Your task to perform on an android device: toggle location history Image 0: 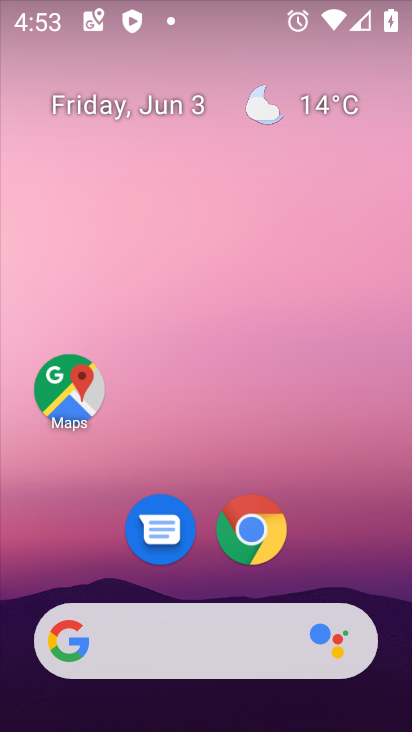
Step 0: press home button
Your task to perform on an android device: toggle location history Image 1: 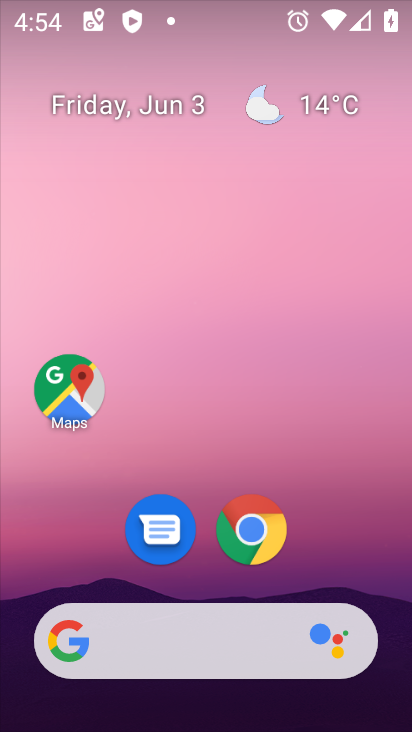
Step 1: drag from (207, 248) to (228, 101)
Your task to perform on an android device: toggle location history Image 2: 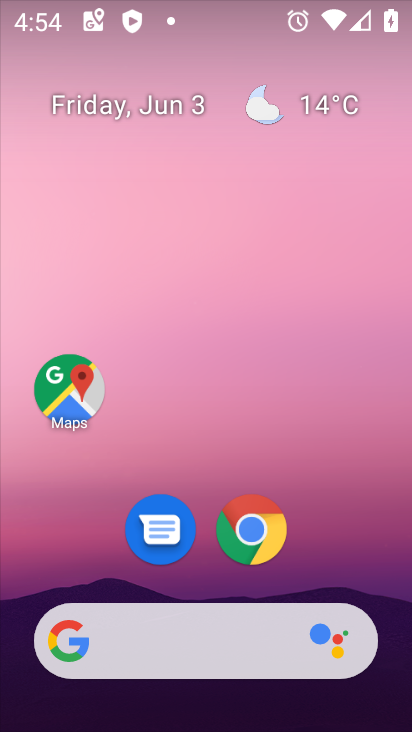
Step 2: drag from (211, 576) to (216, 208)
Your task to perform on an android device: toggle location history Image 3: 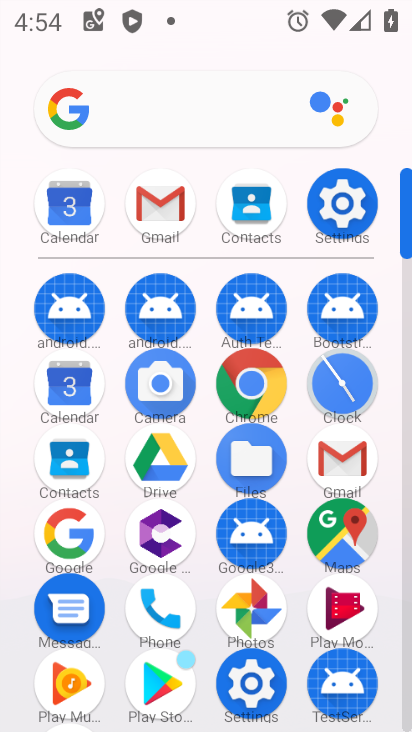
Step 3: click (339, 196)
Your task to perform on an android device: toggle location history Image 4: 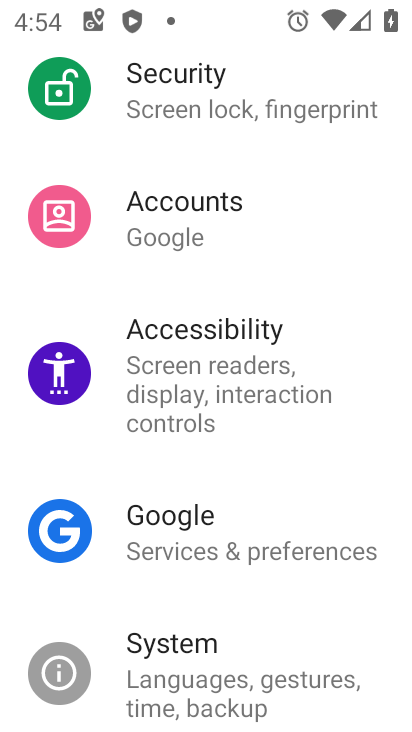
Step 4: drag from (203, 150) to (224, 662)
Your task to perform on an android device: toggle location history Image 5: 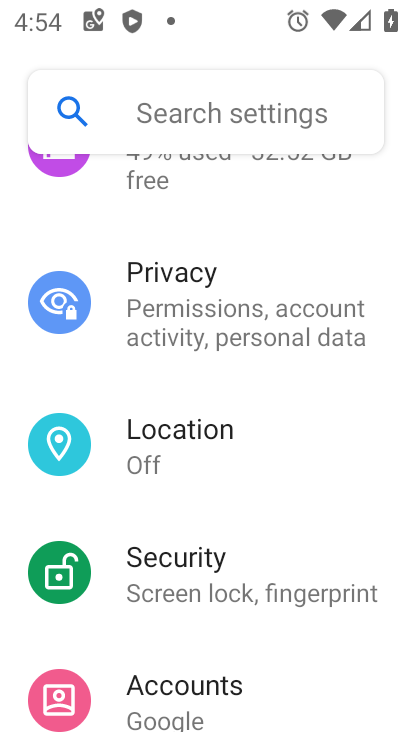
Step 5: click (180, 451)
Your task to perform on an android device: toggle location history Image 6: 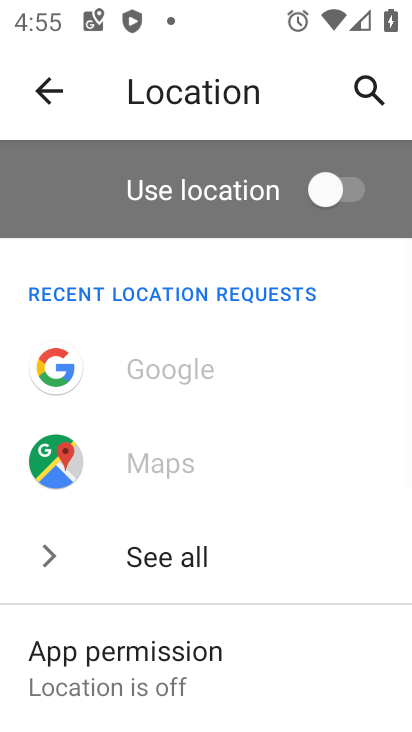
Step 6: drag from (224, 625) to (229, 459)
Your task to perform on an android device: toggle location history Image 7: 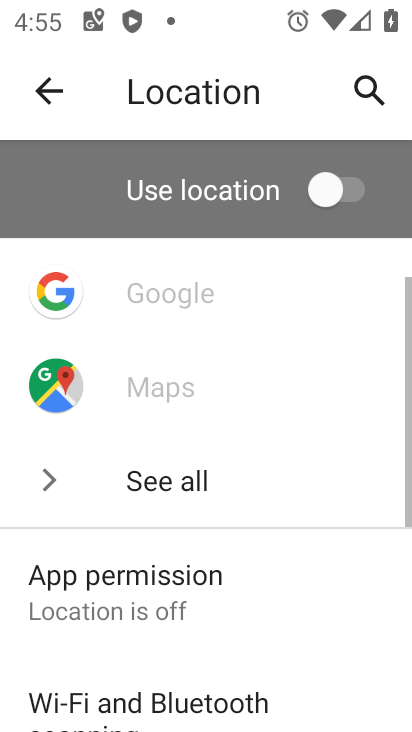
Step 7: drag from (231, 337) to (240, 217)
Your task to perform on an android device: toggle location history Image 8: 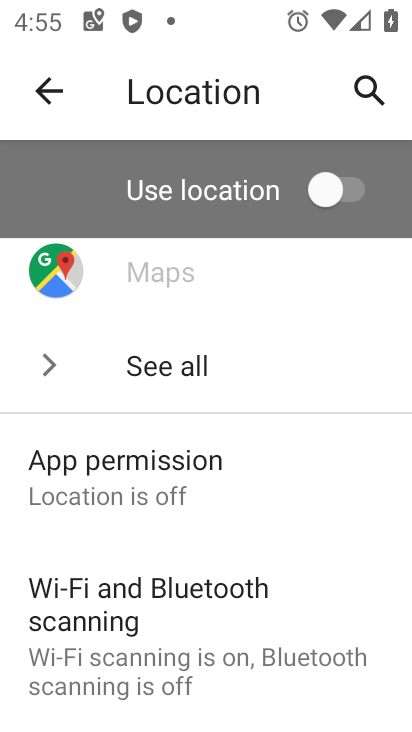
Step 8: drag from (215, 650) to (238, 261)
Your task to perform on an android device: toggle location history Image 9: 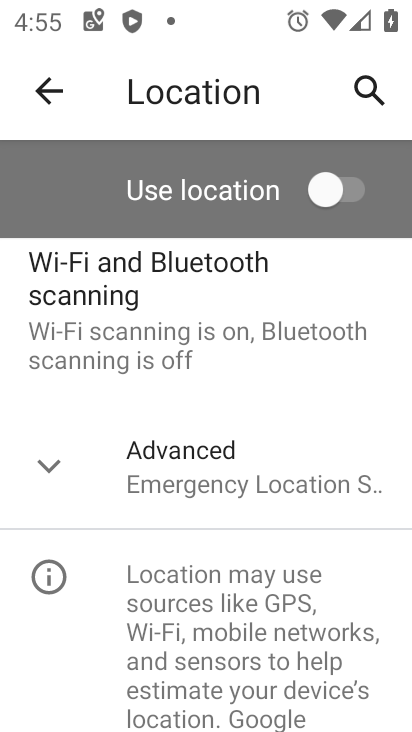
Step 9: click (45, 456)
Your task to perform on an android device: toggle location history Image 10: 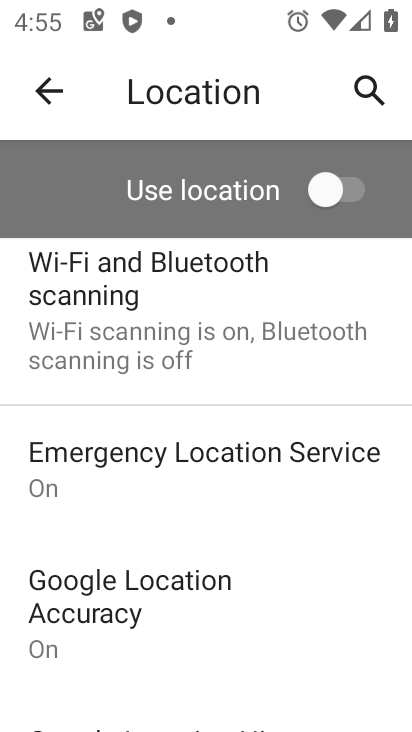
Step 10: drag from (172, 641) to (161, 330)
Your task to perform on an android device: toggle location history Image 11: 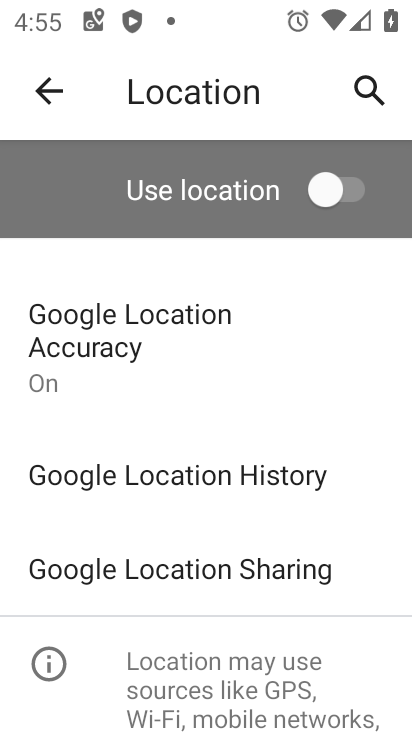
Step 11: click (346, 468)
Your task to perform on an android device: toggle location history Image 12: 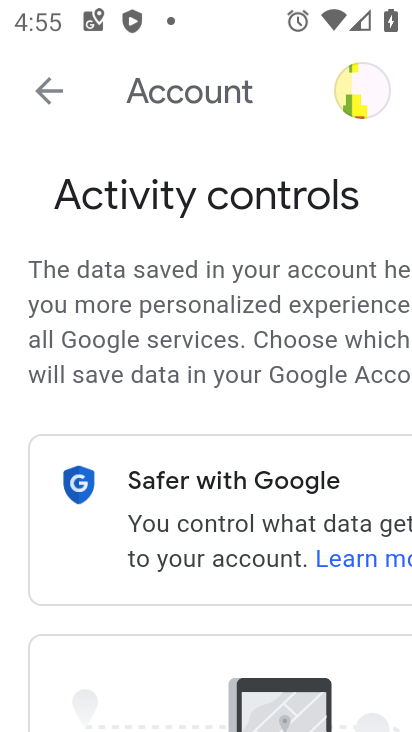
Step 12: drag from (179, 638) to (219, 203)
Your task to perform on an android device: toggle location history Image 13: 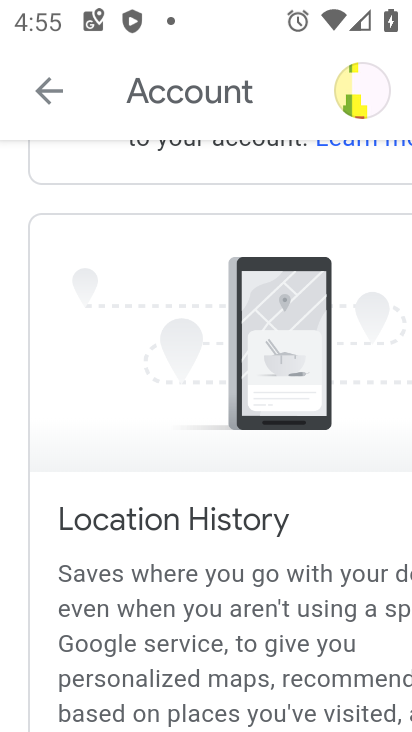
Step 13: drag from (249, 645) to (245, 180)
Your task to perform on an android device: toggle location history Image 14: 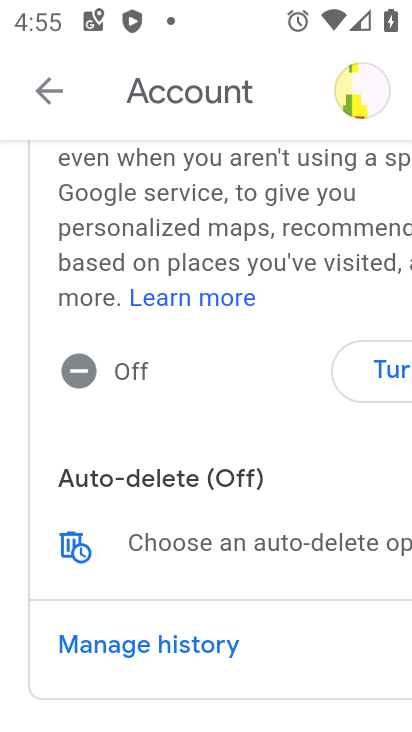
Step 14: click (381, 371)
Your task to perform on an android device: toggle location history Image 15: 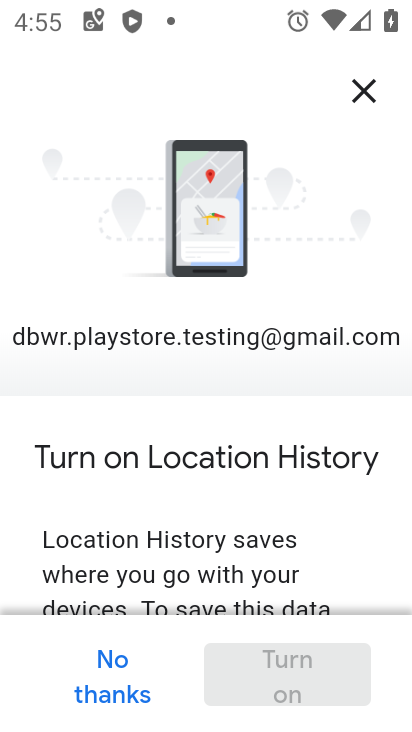
Step 15: drag from (238, 562) to (263, 87)
Your task to perform on an android device: toggle location history Image 16: 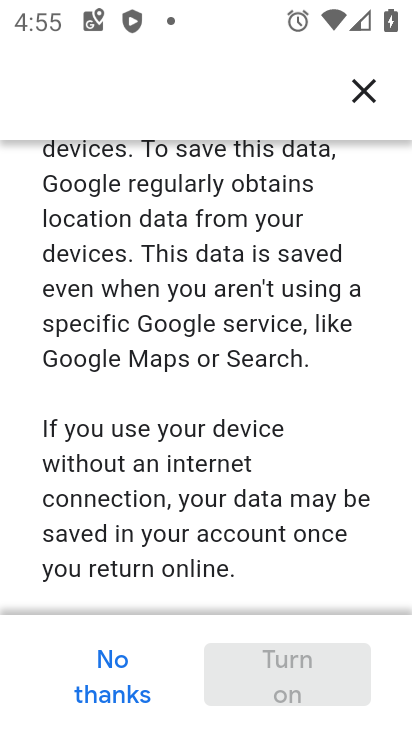
Step 16: drag from (248, 538) to (246, 98)
Your task to perform on an android device: toggle location history Image 17: 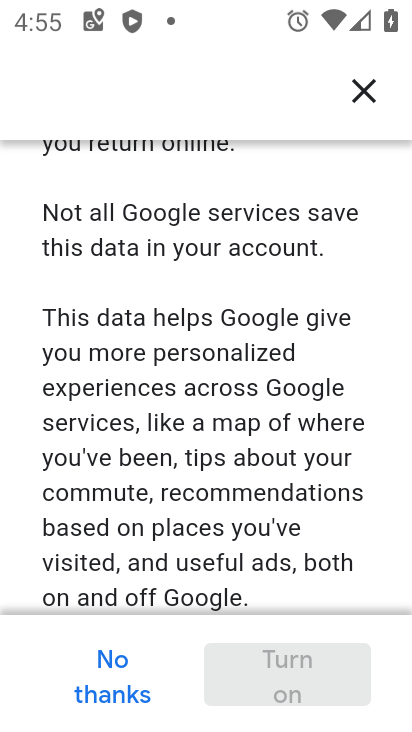
Step 17: drag from (221, 563) to (248, 75)
Your task to perform on an android device: toggle location history Image 18: 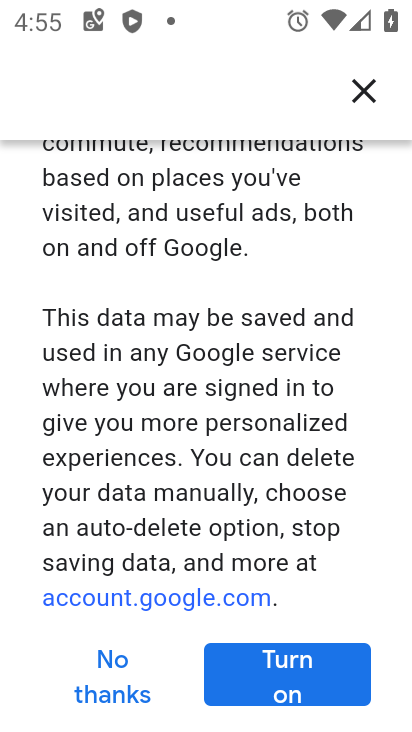
Step 18: click (293, 665)
Your task to perform on an android device: toggle location history Image 19: 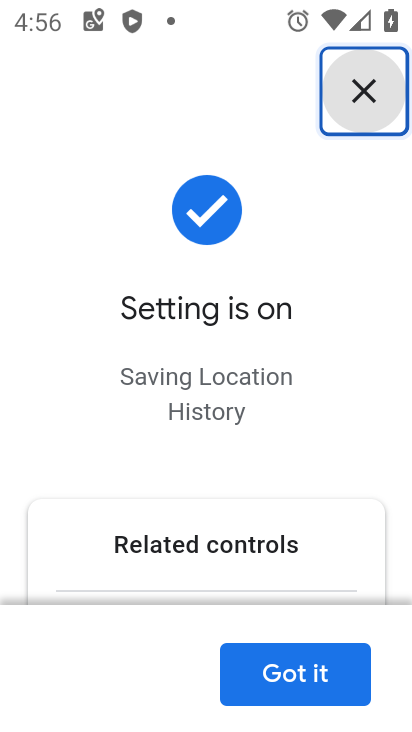
Step 19: click (298, 671)
Your task to perform on an android device: toggle location history Image 20: 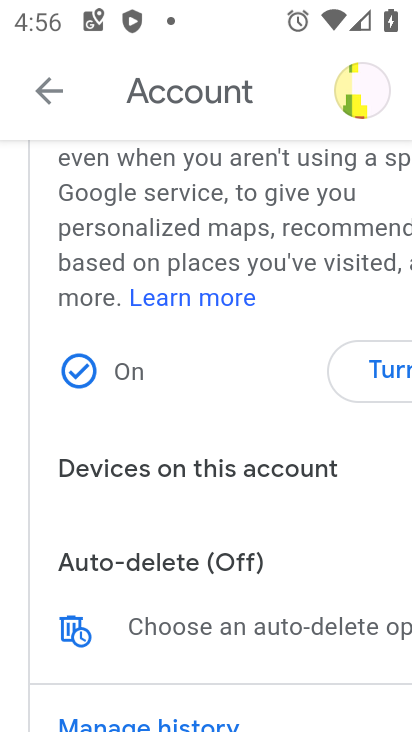
Step 20: task complete